Your task to perform on an android device: turn off data saver in the chrome app Image 0: 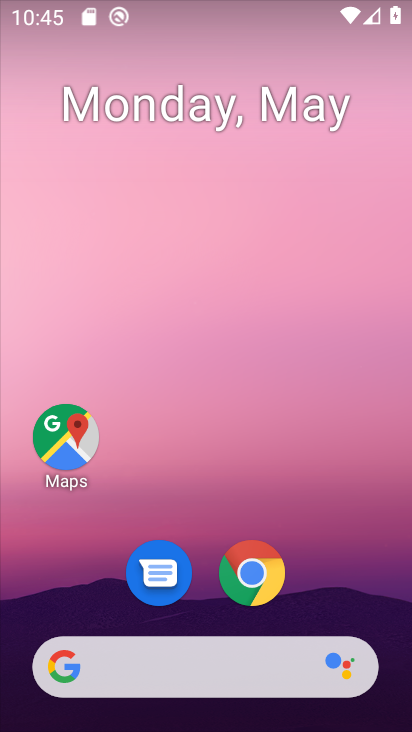
Step 0: click (245, 585)
Your task to perform on an android device: turn off data saver in the chrome app Image 1: 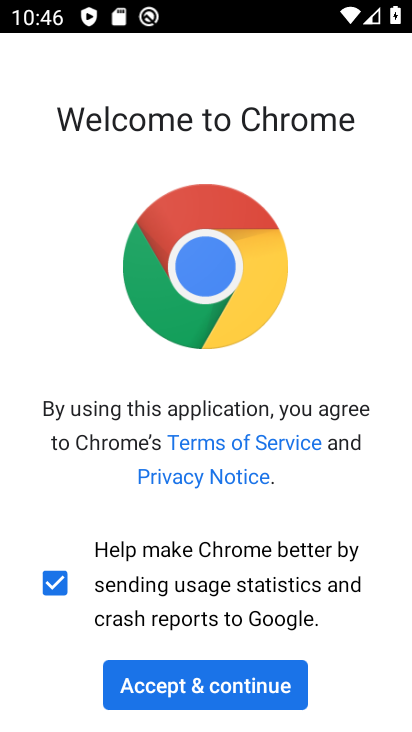
Step 1: click (244, 689)
Your task to perform on an android device: turn off data saver in the chrome app Image 2: 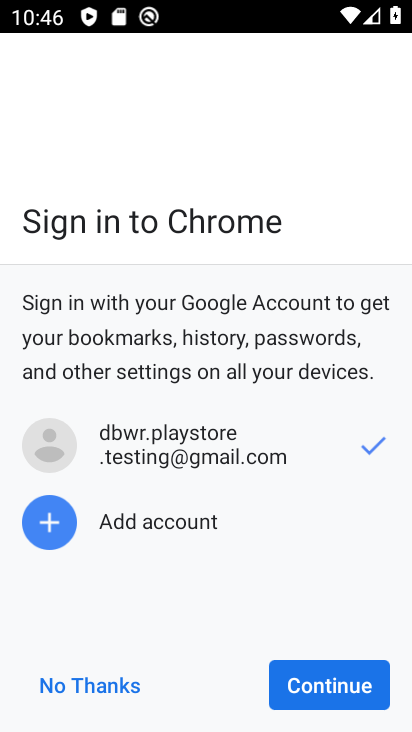
Step 2: click (320, 681)
Your task to perform on an android device: turn off data saver in the chrome app Image 3: 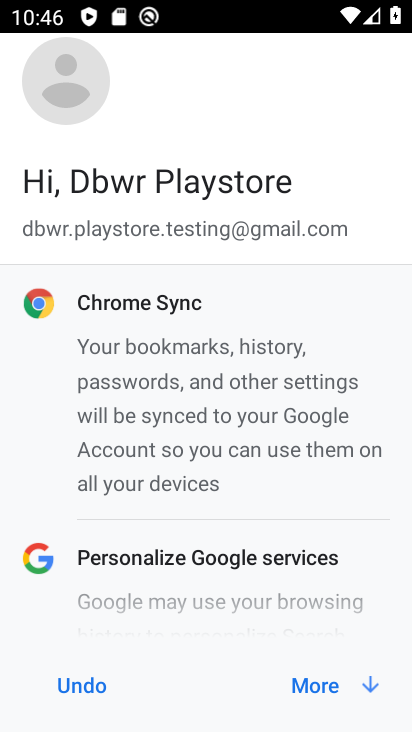
Step 3: click (297, 684)
Your task to perform on an android device: turn off data saver in the chrome app Image 4: 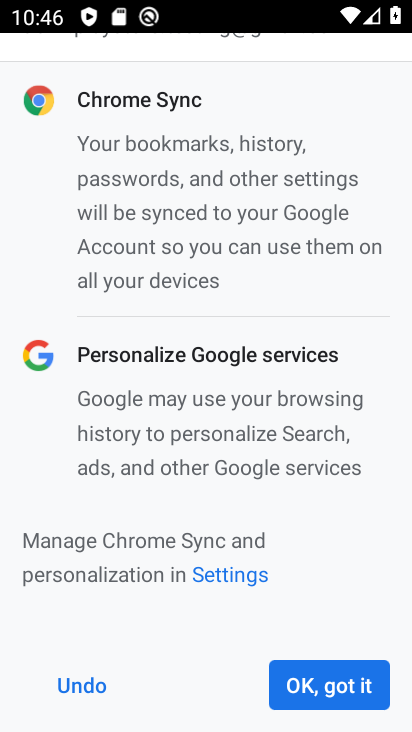
Step 4: click (297, 684)
Your task to perform on an android device: turn off data saver in the chrome app Image 5: 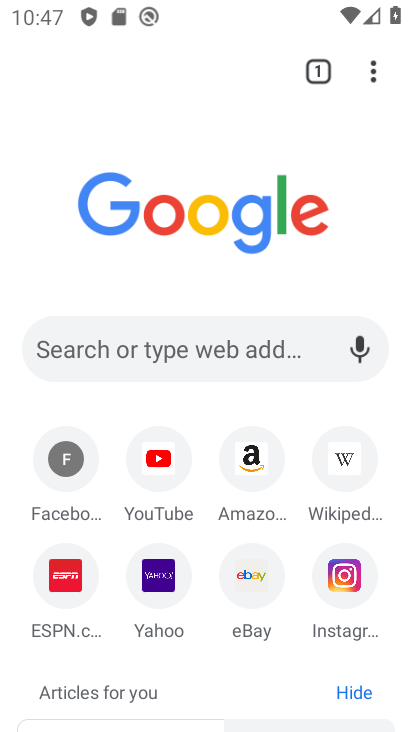
Step 5: click (372, 74)
Your task to perform on an android device: turn off data saver in the chrome app Image 6: 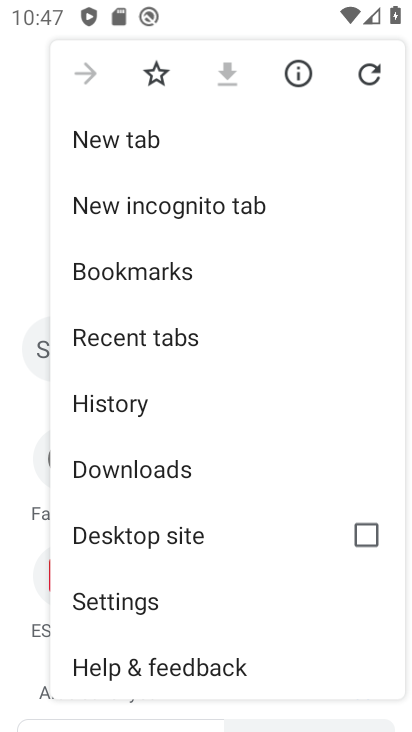
Step 6: click (131, 607)
Your task to perform on an android device: turn off data saver in the chrome app Image 7: 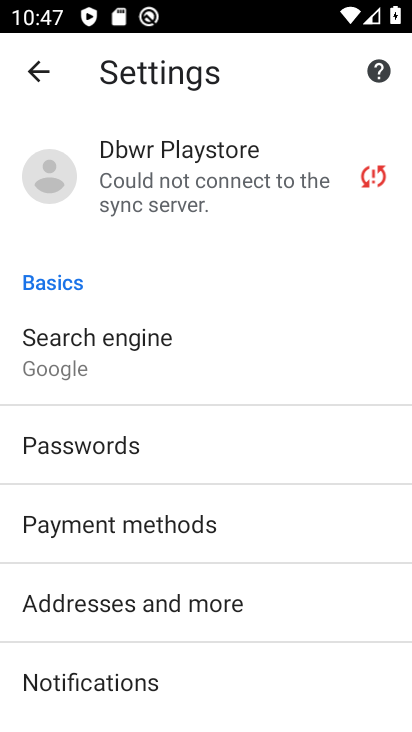
Step 7: drag from (115, 570) to (155, 145)
Your task to perform on an android device: turn off data saver in the chrome app Image 8: 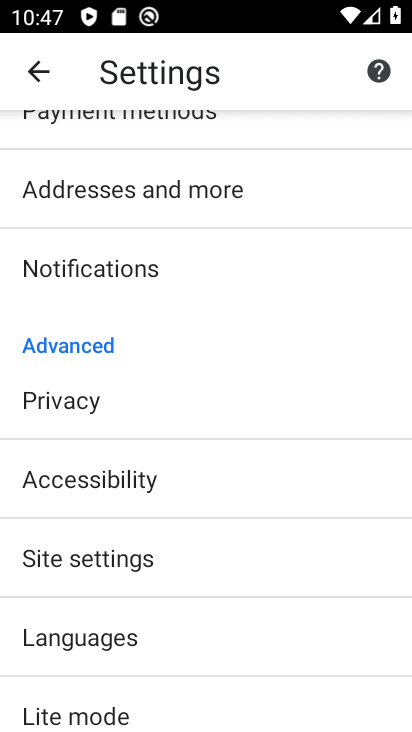
Step 8: click (96, 718)
Your task to perform on an android device: turn off data saver in the chrome app Image 9: 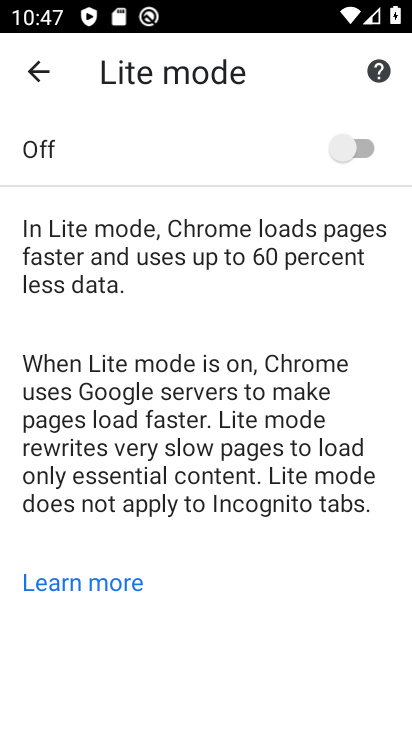
Step 9: task complete